Your task to perform on an android device: snooze an email in the gmail app Image 0: 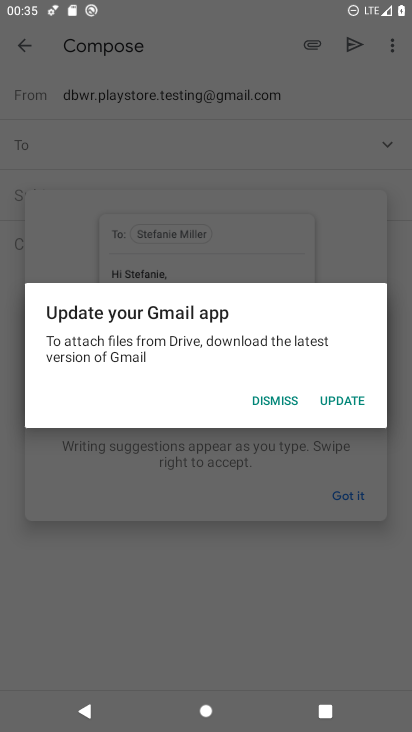
Step 0: press home button
Your task to perform on an android device: snooze an email in the gmail app Image 1: 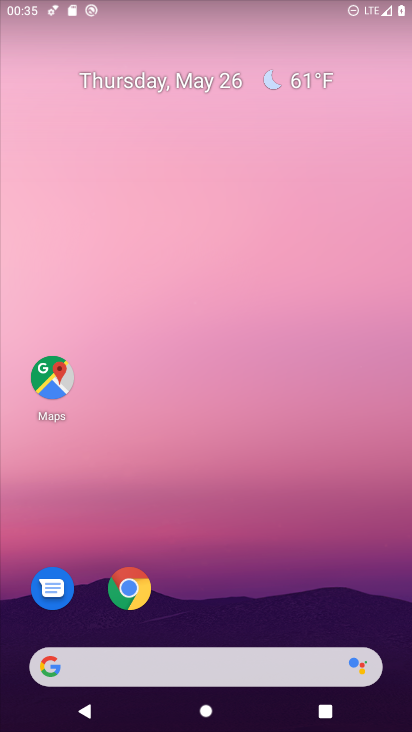
Step 1: drag from (285, 569) to (142, 218)
Your task to perform on an android device: snooze an email in the gmail app Image 2: 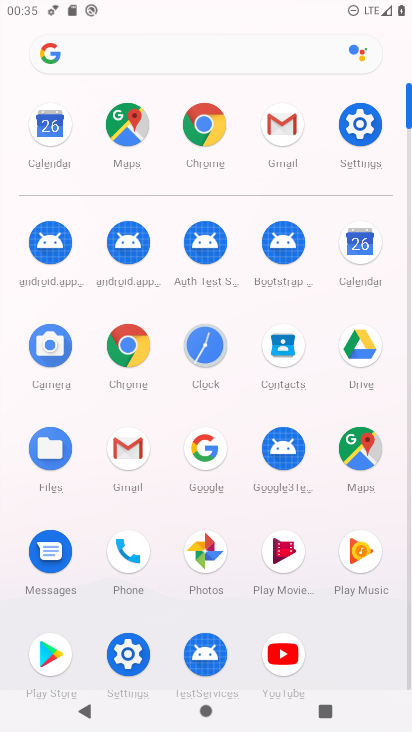
Step 2: click (279, 122)
Your task to perform on an android device: snooze an email in the gmail app Image 3: 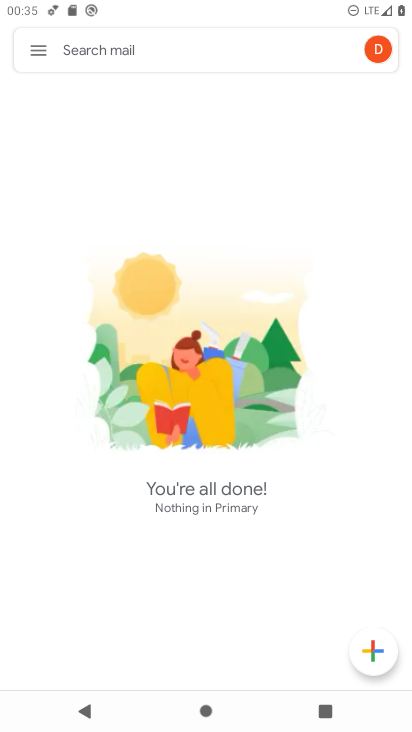
Step 3: click (42, 50)
Your task to perform on an android device: snooze an email in the gmail app Image 4: 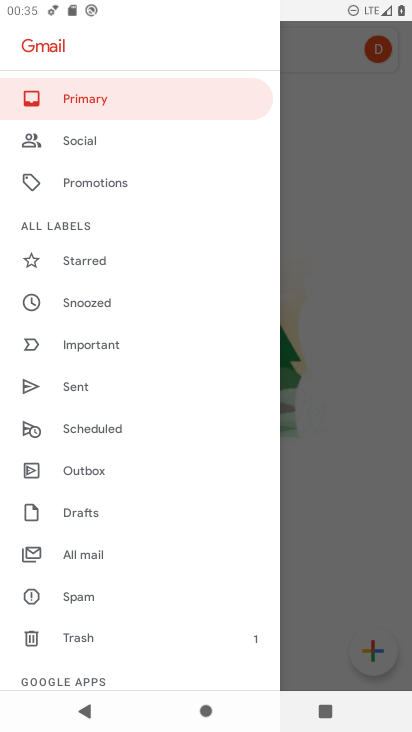
Step 4: click (90, 295)
Your task to perform on an android device: snooze an email in the gmail app Image 5: 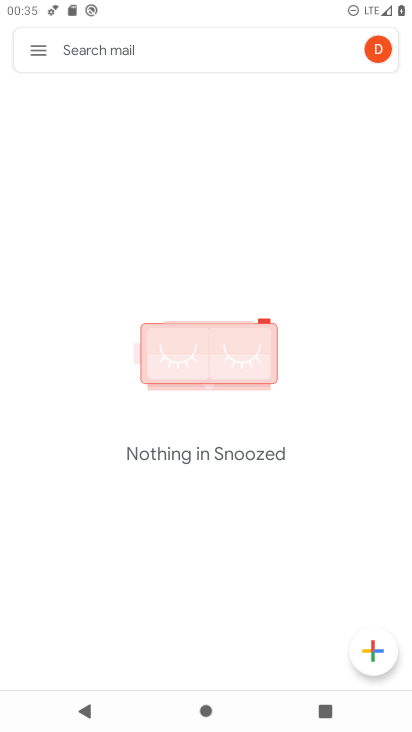
Step 5: task complete